Your task to perform on an android device: Go to eBay Image 0: 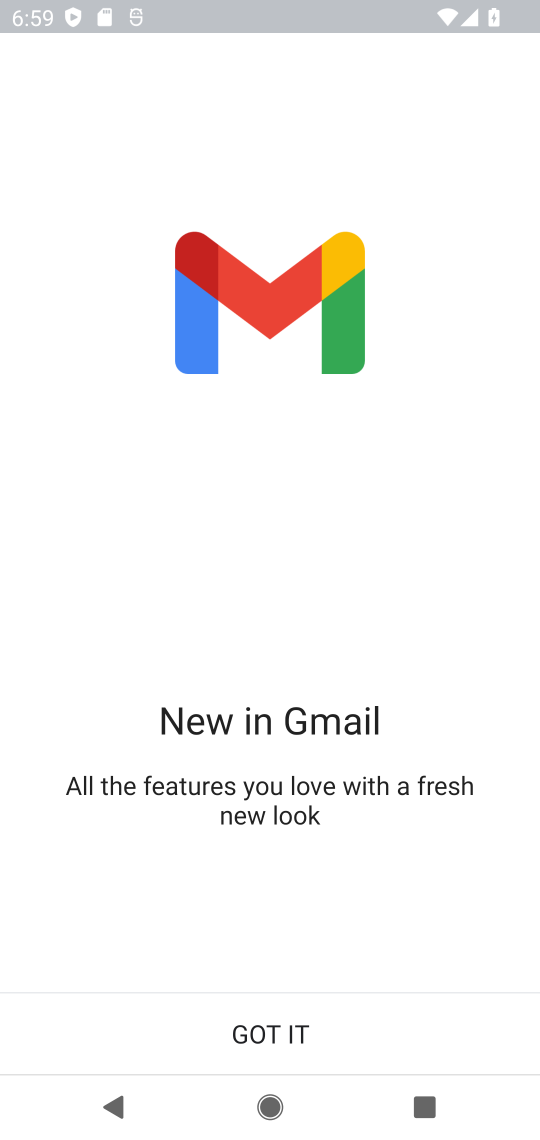
Step 0: press home button
Your task to perform on an android device: Go to eBay Image 1: 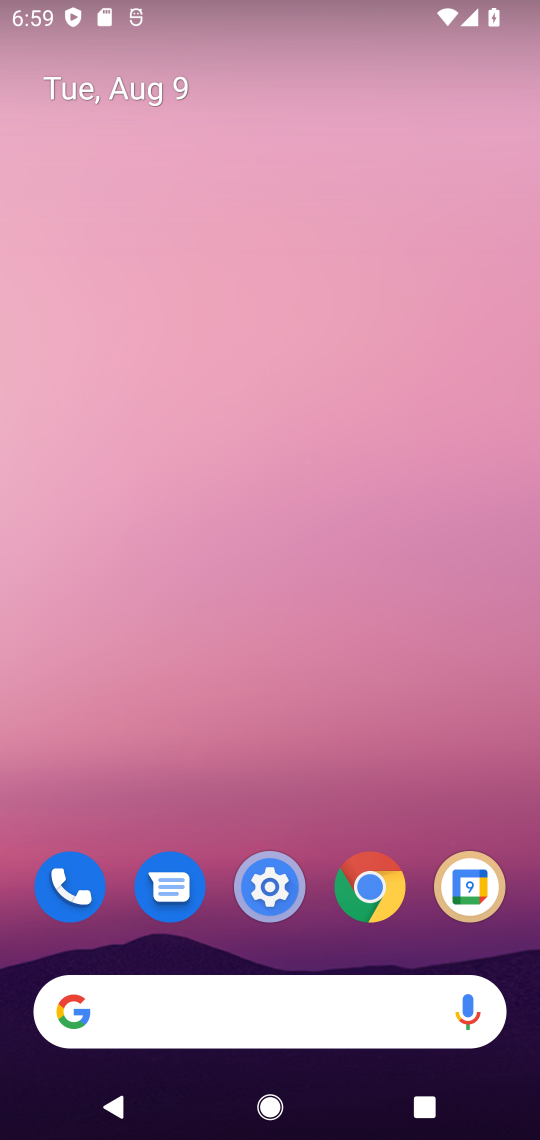
Step 1: click (199, 1024)
Your task to perform on an android device: Go to eBay Image 2: 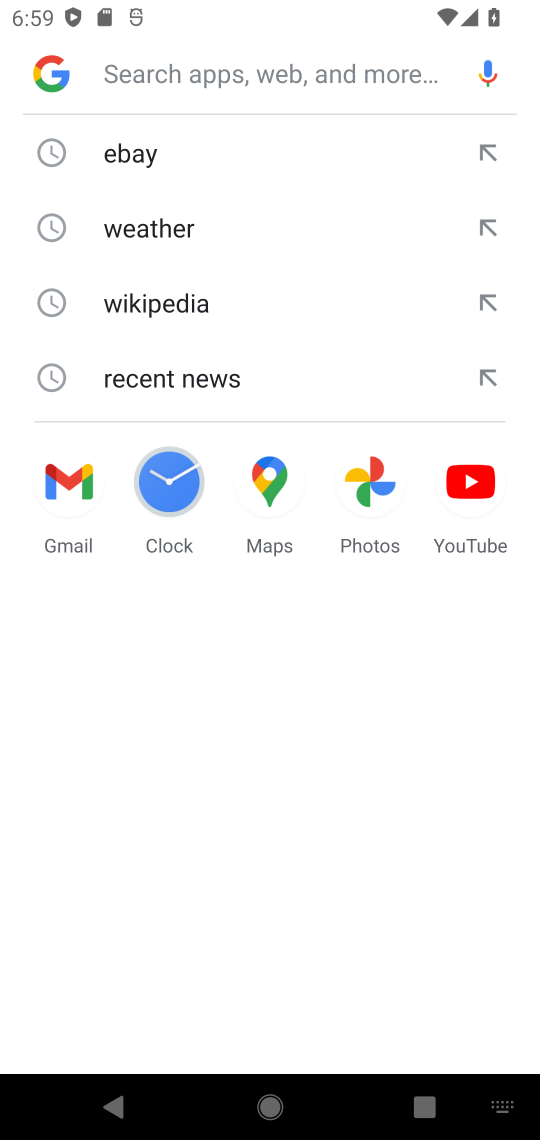
Step 2: click (199, 152)
Your task to perform on an android device: Go to eBay Image 3: 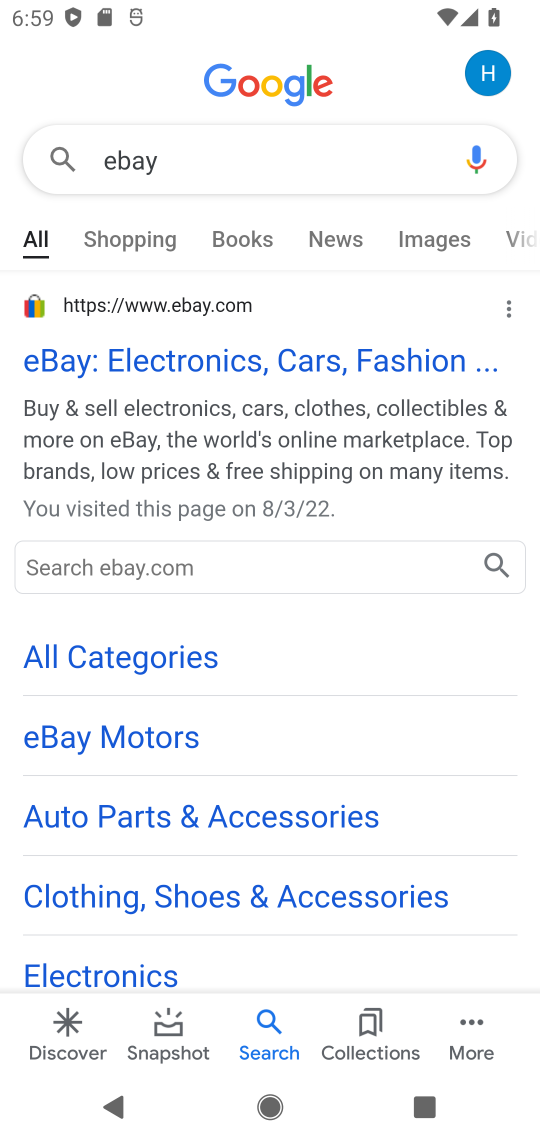
Step 3: click (175, 364)
Your task to perform on an android device: Go to eBay Image 4: 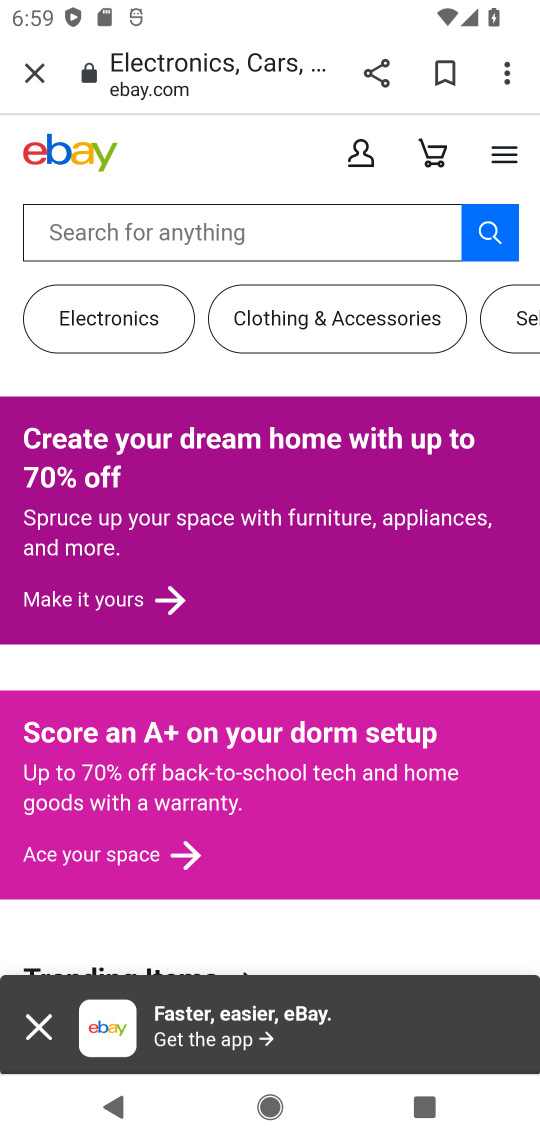
Step 4: task complete